Your task to perform on an android device: Open Google Chrome Image 0: 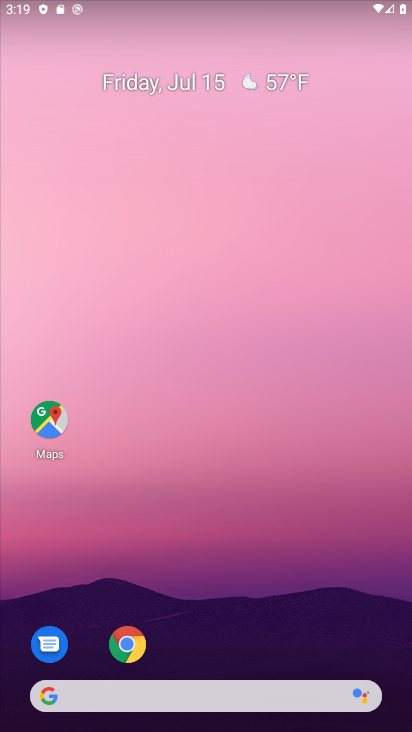
Step 0: click (134, 657)
Your task to perform on an android device: Open Google Chrome Image 1: 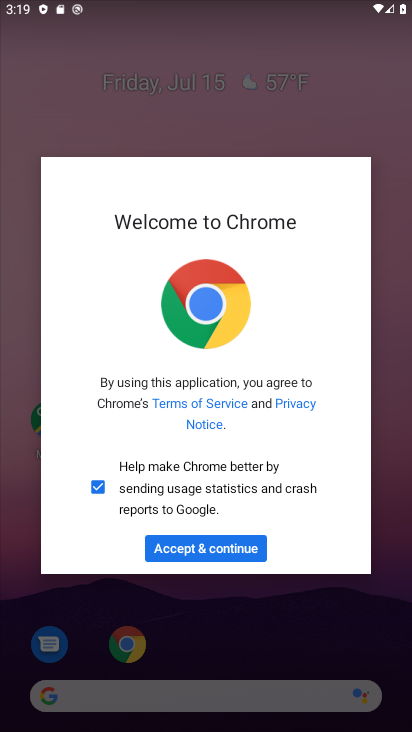
Step 1: click (220, 538)
Your task to perform on an android device: Open Google Chrome Image 2: 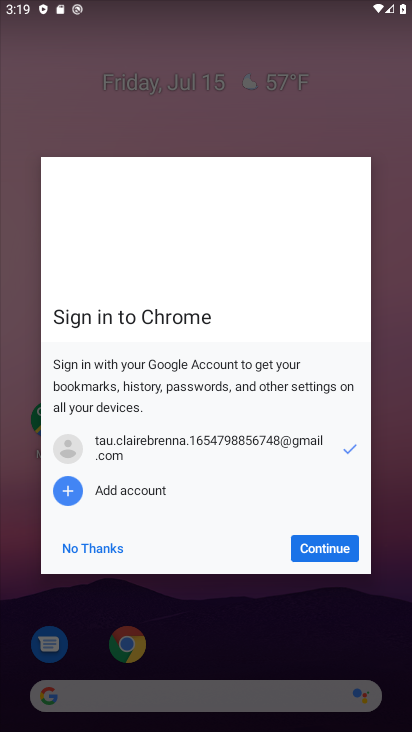
Step 2: click (336, 552)
Your task to perform on an android device: Open Google Chrome Image 3: 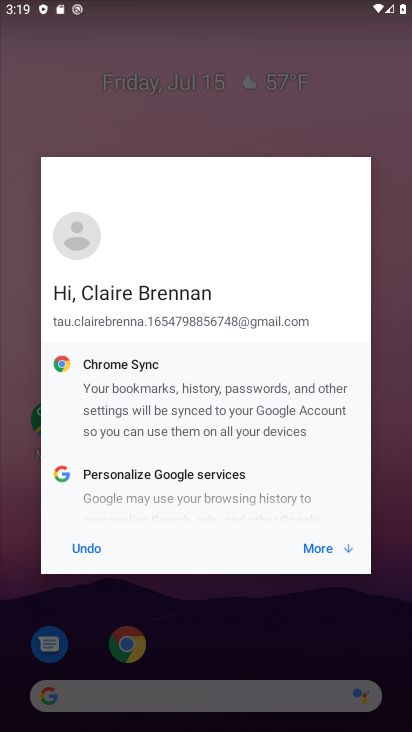
Step 3: click (336, 552)
Your task to perform on an android device: Open Google Chrome Image 4: 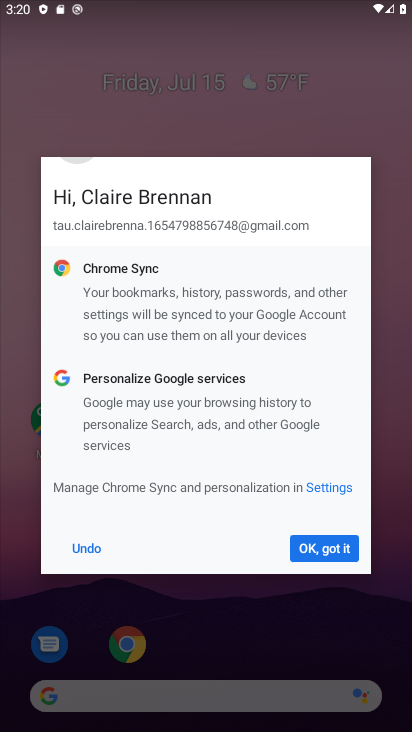
Step 4: click (336, 552)
Your task to perform on an android device: Open Google Chrome Image 5: 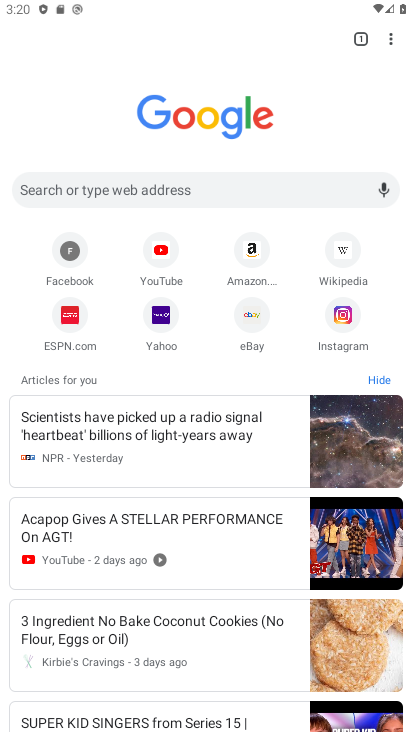
Step 5: task complete